Your task to perform on an android device: delete the emails in spam in the gmail app Image 0: 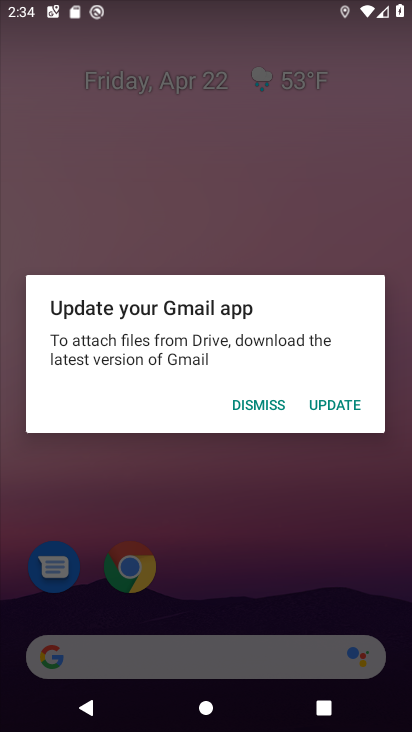
Step 0: press home button
Your task to perform on an android device: delete the emails in spam in the gmail app Image 1: 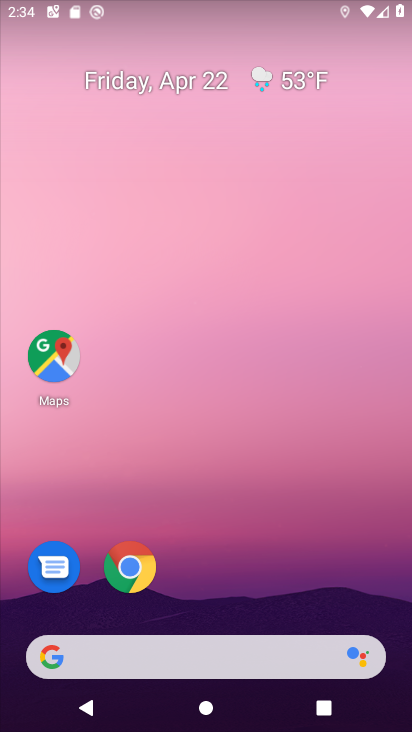
Step 1: drag from (234, 144) to (234, 107)
Your task to perform on an android device: delete the emails in spam in the gmail app Image 2: 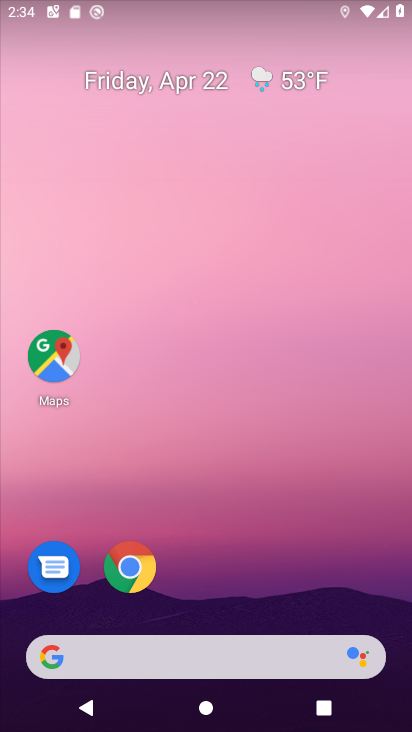
Step 2: drag from (260, 565) to (293, 85)
Your task to perform on an android device: delete the emails in spam in the gmail app Image 3: 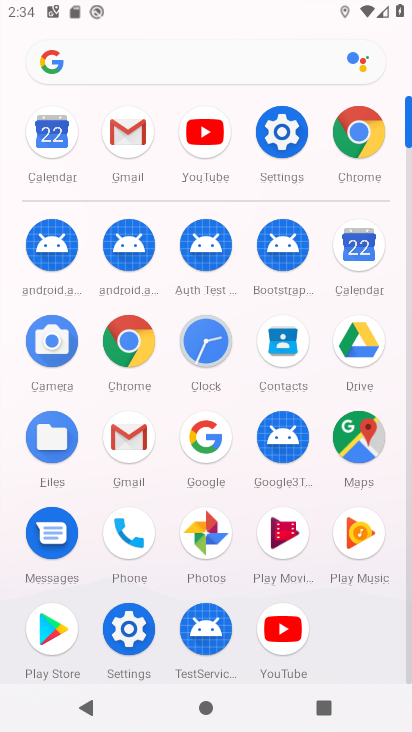
Step 3: click (129, 133)
Your task to perform on an android device: delete the emails in spam in the gmail app Image 4: 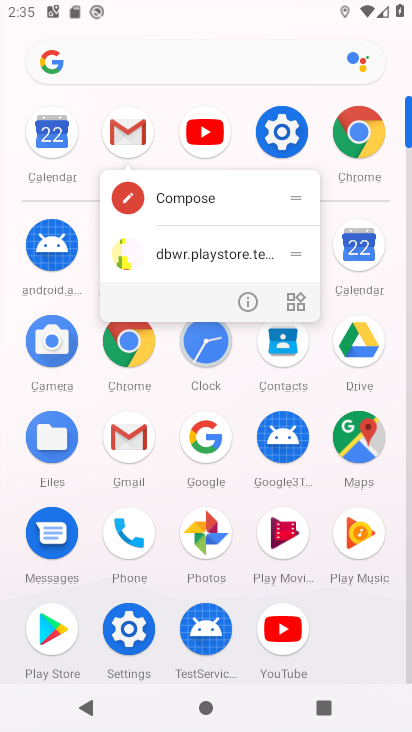
Step 4: click (129, 135)
Your task to perform on an android device: delete the emails in spam in the gmail app Image 5: 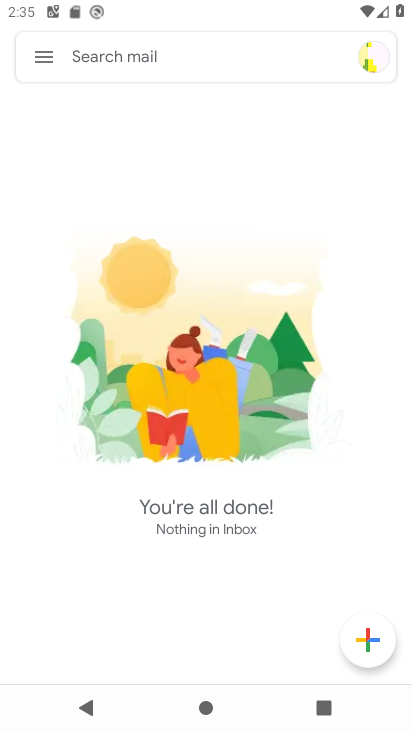
Step 5: click (45, 56)
Your task to perform on an android device: delete the emails in spam in the gmail app Image 6: 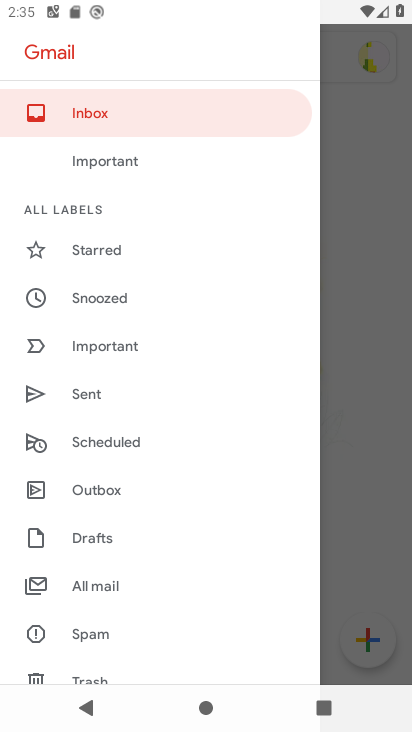
Step 6: click (118, 632)
Your task to perform on an android device: delete the emails in spam in the gmail app Image 7: 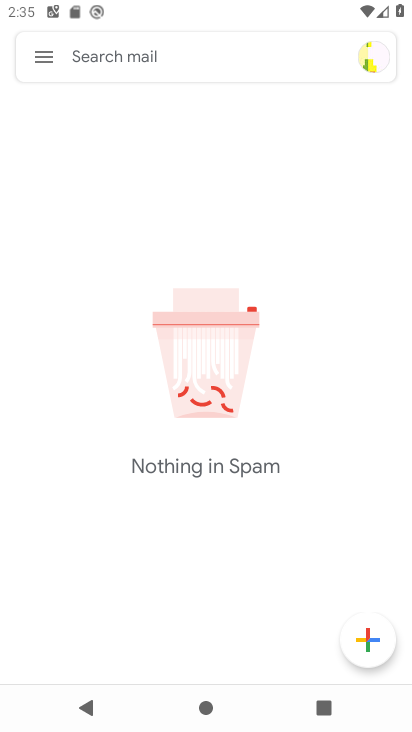
Step 7: task complete